Your task to perform on an android device: turn on the 12-hour format for clock Image 0: 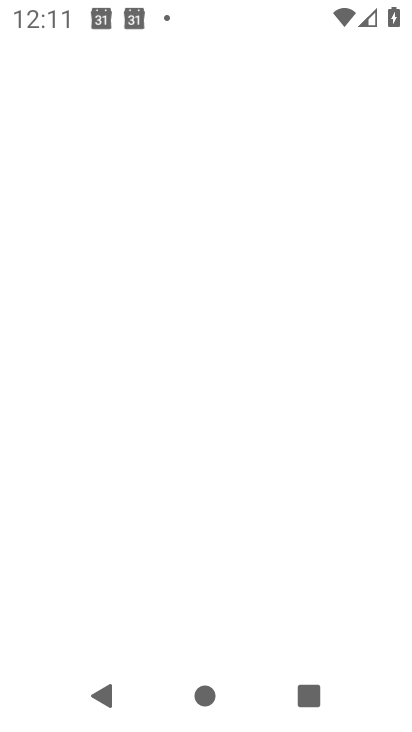
Step 0: press home button
Your task to perform on an android device: turn on the 12-hour format for clock Image 1: 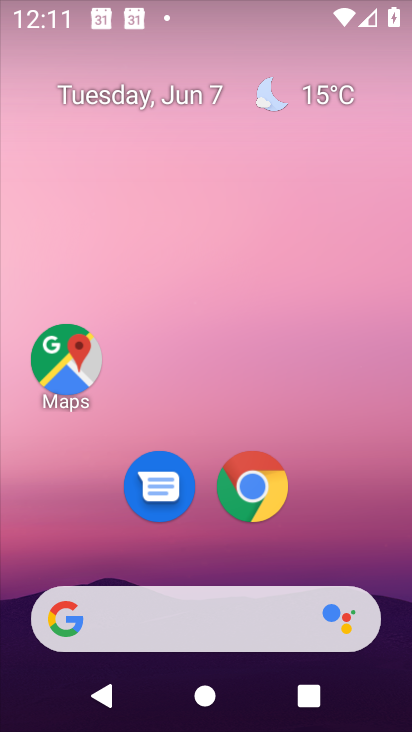
Step 1: drag from (307, 360) to (275, 31)
Your task to perform on an android device: turn on the 12-hour format for clock Image 2: 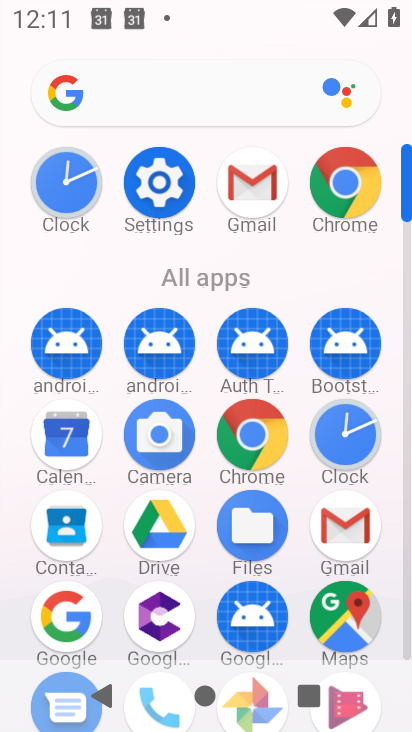
Step 2: click (332, 437)
Your task to perform on an android device: turn on the 12-hour format for clock Image 3: 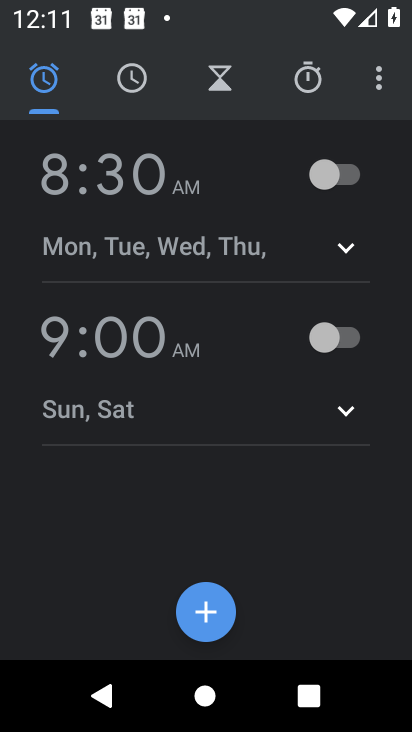
Step 3: click (390, 77)
Your task to perform on an android device: turn on the 12-hour format for clock Image 4: 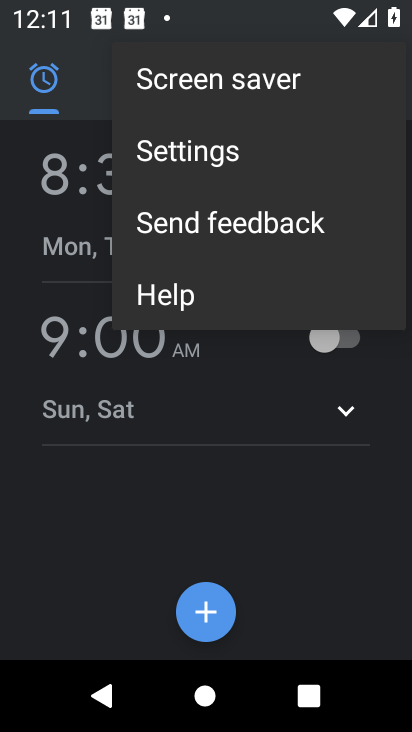
Step 4: click (220, 164)
Your task to perform on an android device: turn on the 12-hour format for clock Image 5: 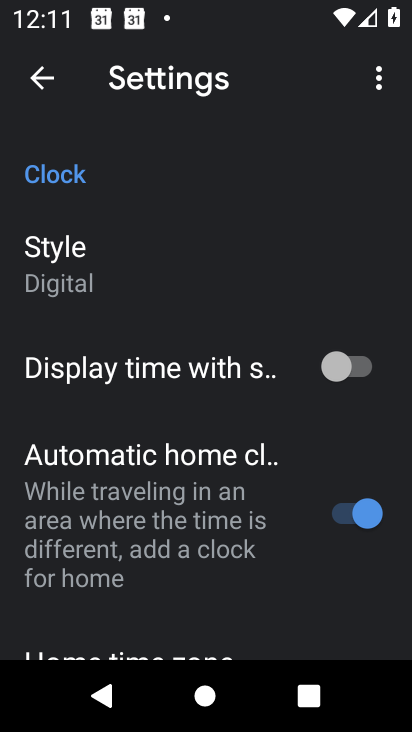
Step 5: drag from (267, 528) to (269, 181)
Your task to perform on an android device: turn on the 12-hour format for clock Image 6: 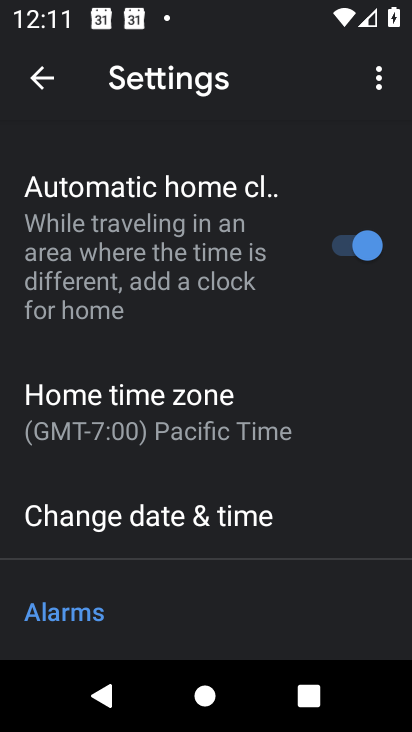
Step 6: drag from (199, 205) to (238, 200)
Your task to perform on an android device: turn on the 12-hour format for clock Image 7: 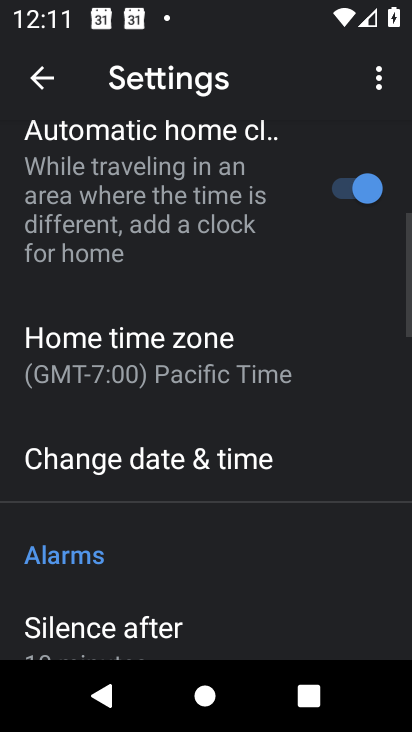
Step 7: click (215, 458)
Your task to perform on an android device: turn on the 12-hour format for clock Image 8: 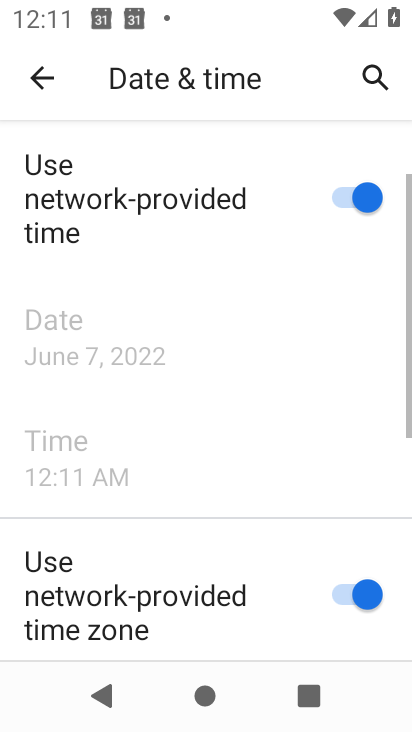
Step 8: task complete